Your task to perform on an android device: Go to internet settings Image 0: 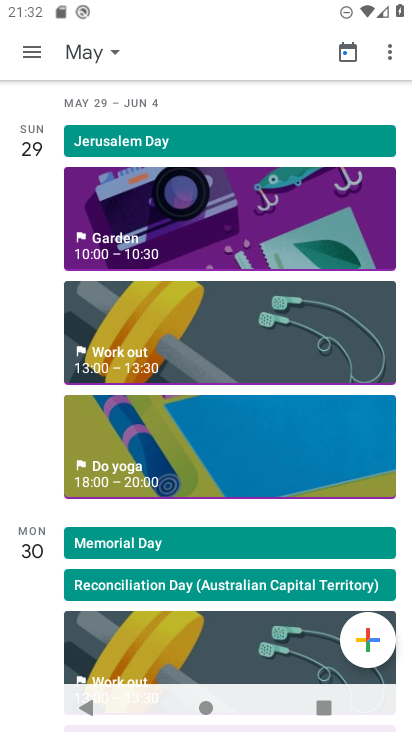
Step 0: drag from (120, 597) to (260, 174)
Your task to perform on an android device: Go to internet settings Image 1: 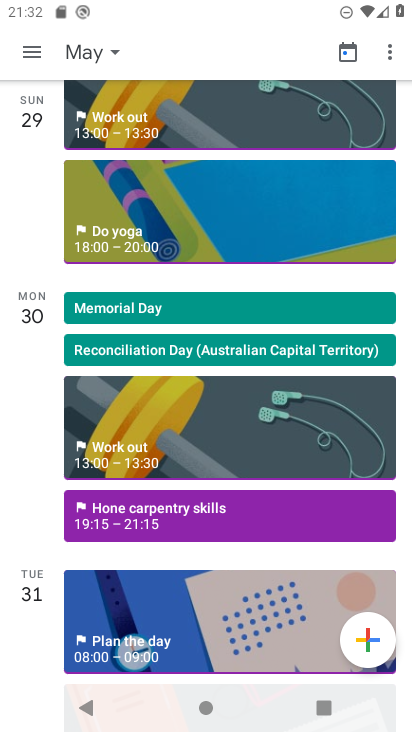
Step 1: press home button
Your task to perform on an android device: Go to internet settings Image 2: 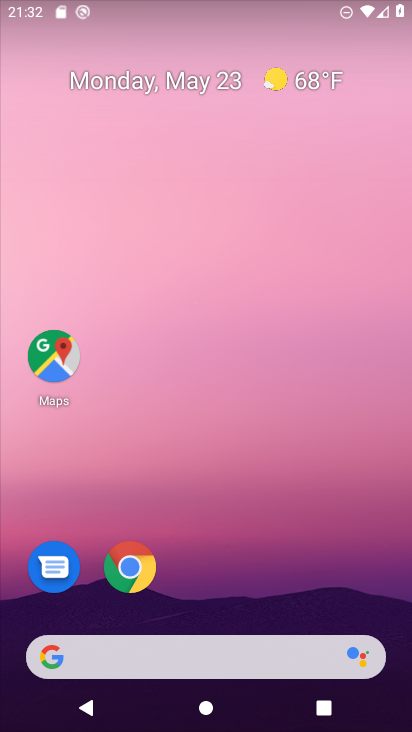
Step 2: drag from (208, 615) to (273, 114)
Your task to perform on an android device: Go to internet settings Image 3: 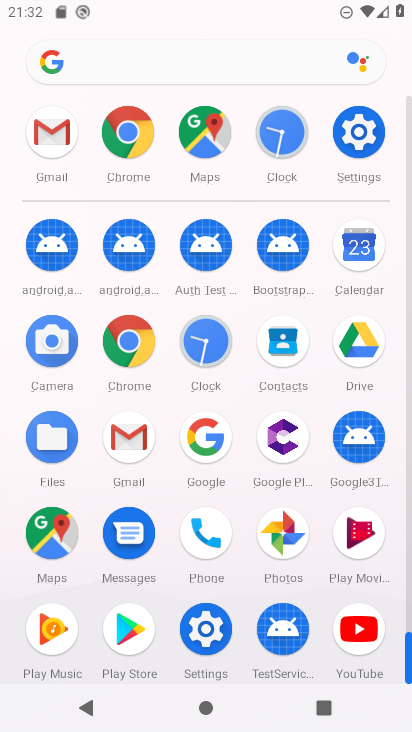
Step 3: click (349, 135)
Your task to perform on an android device: Go to internet settings Image 4: 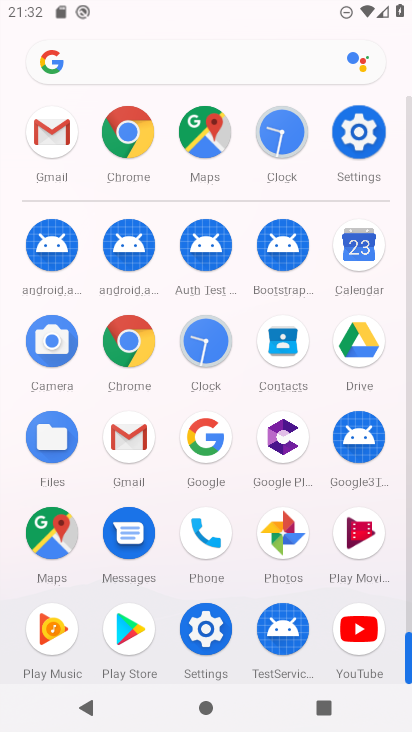
Step 4: click (349, 135)
Your task to perform on an android device: Go to internet settings Image 5: 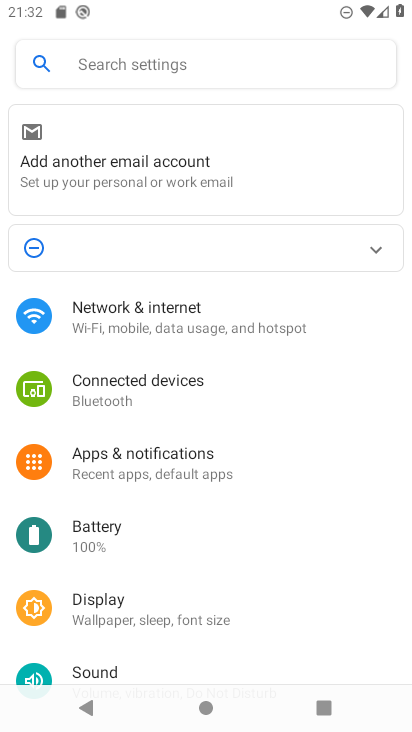
Step 5: click (80, 330)
Your task to perform on an android device: Go to internet settings Image 6: 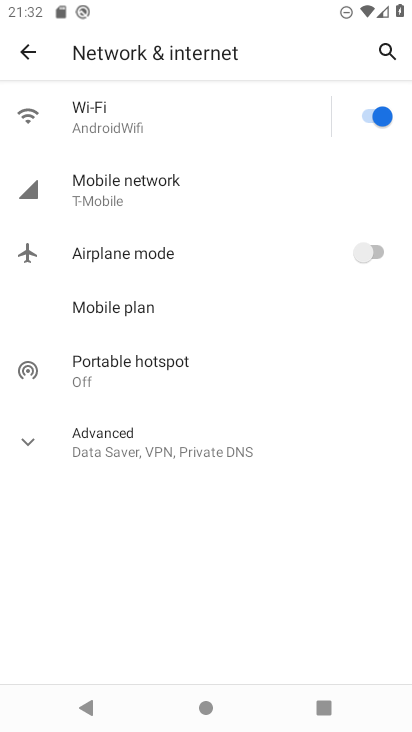
Step 6: task complete